Your task to perform on an android device: Open the web browser Image 0: 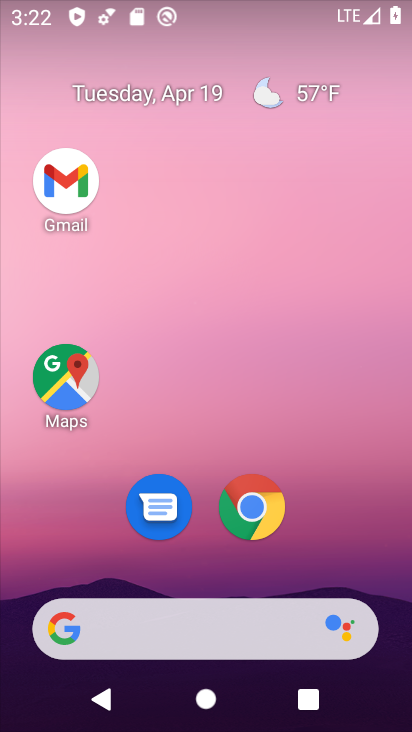
Step 0: click (243, 497)
Your task to perform on an android device: Open the web browser Image 1: 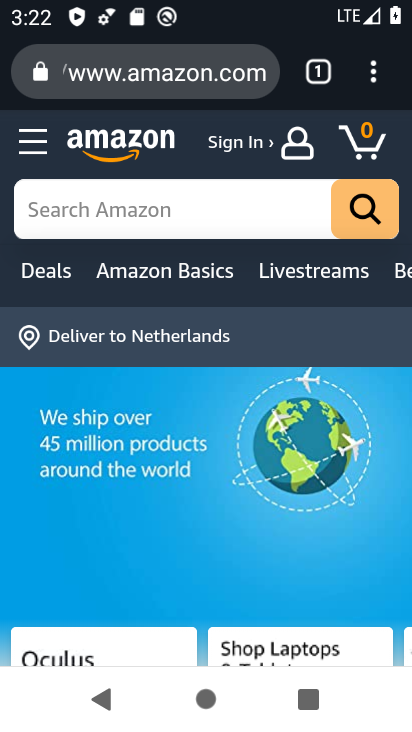
Step 1: task complete